Your task to perform on an android device: check the backup settings in the google photos Image 0: 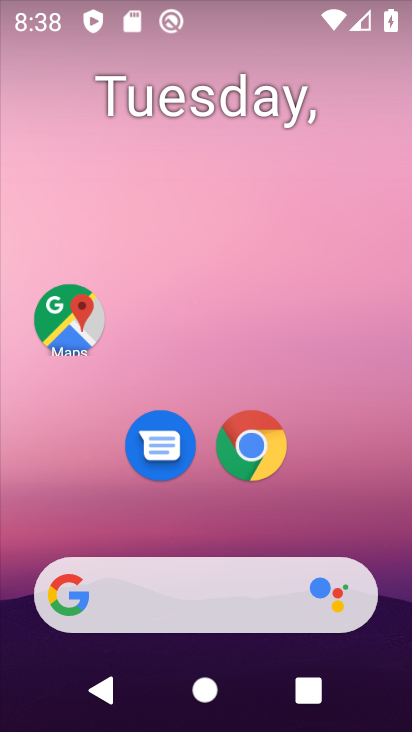
Step 0: drag from (222, 371) to (249, 54)
Your task to perform on an android device: check the backup settings in the google photos Image 1: 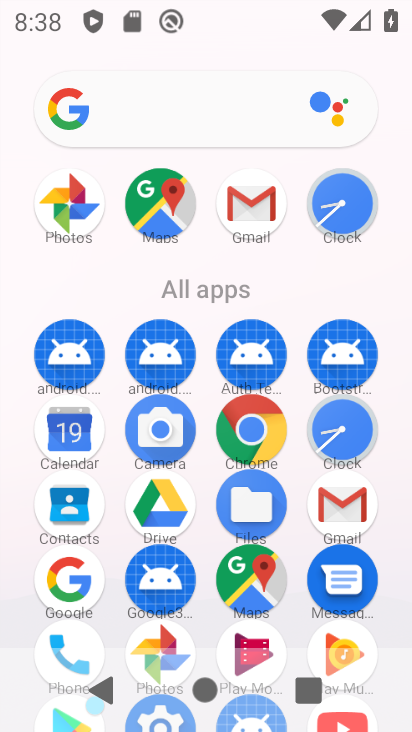
Step 1: click (70, 206)
Your task to perform on an android device: check the backup settings in the google photos Image 2: 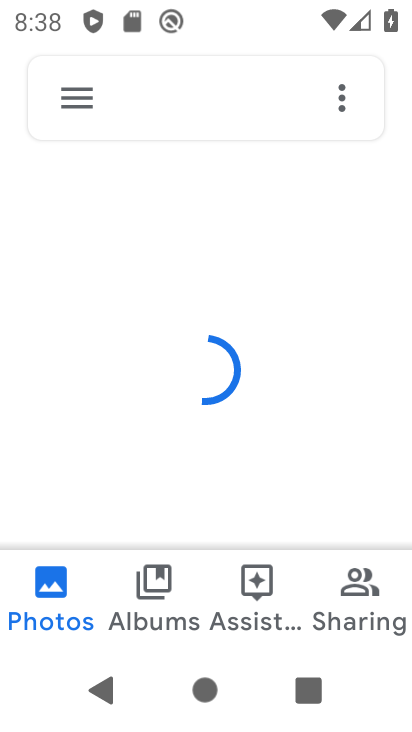
Step 2: click (82, 92)
Your task to perform on an android device: check the backup settings in the google photos Image 3: 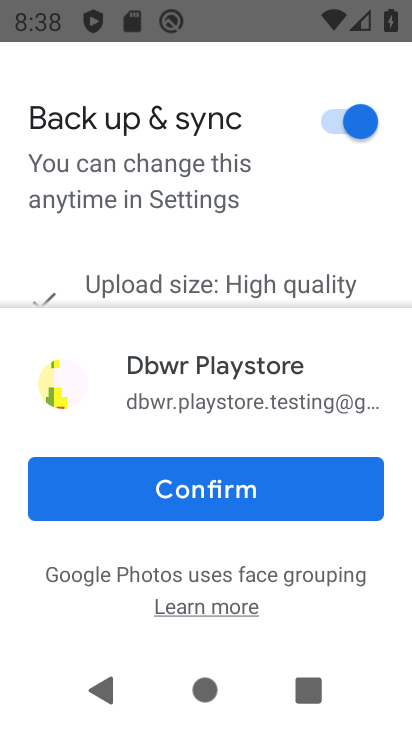
Step 3: click (222, 497)
Your task to perform on an android device: check the backup settings in the google photos Image 4: 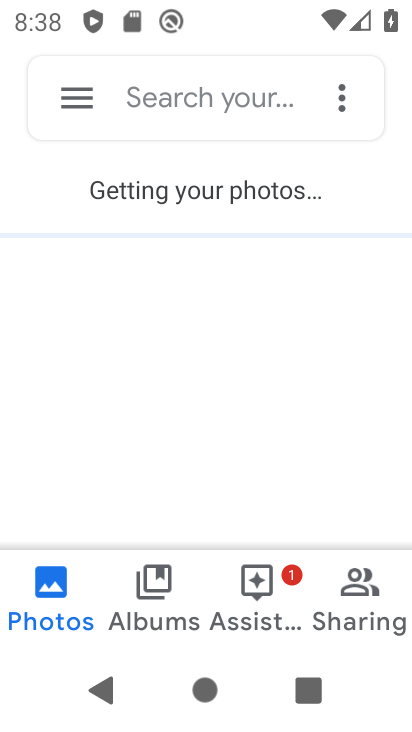
Step 4: click (68, 110)
Your task to perform on an android device: check the backup settings in the google photos Image 5: 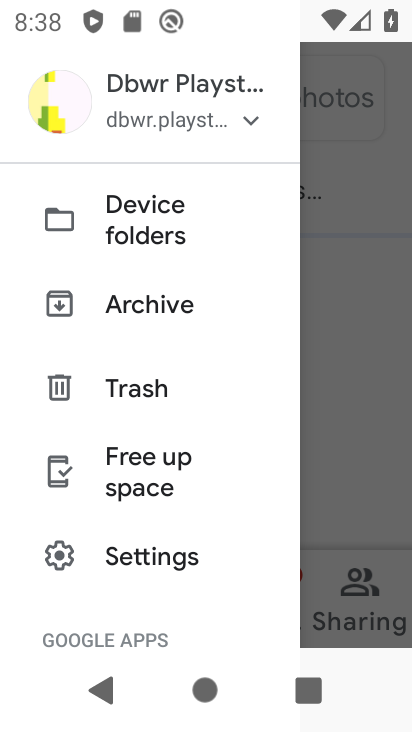
Step 5: click (116, 563)
Your task to perform on an android device: check the backup settings in the google photos Image 6: 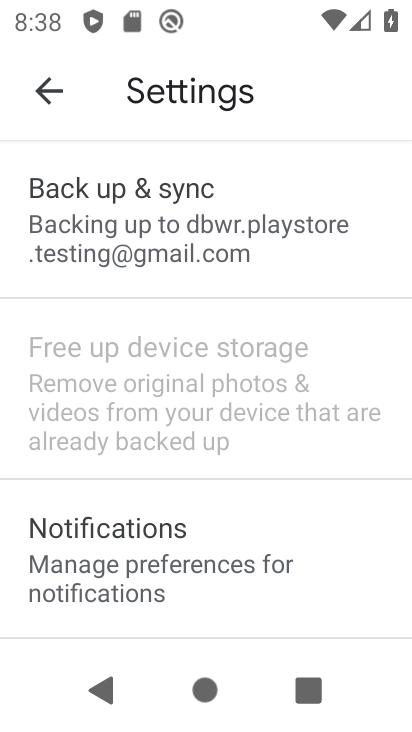
Step 6: click (192, 252)
Your task to perform on an android device: check the backup settings in the google photos Image 7: 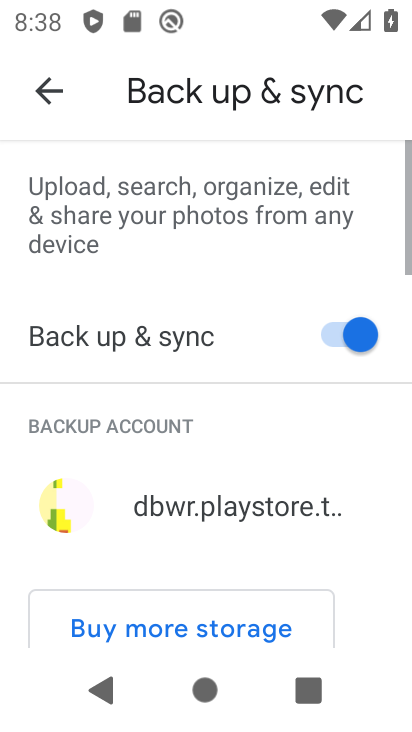
Step 7: task complete